Your task to perform on an android device: turn off location Image 0: 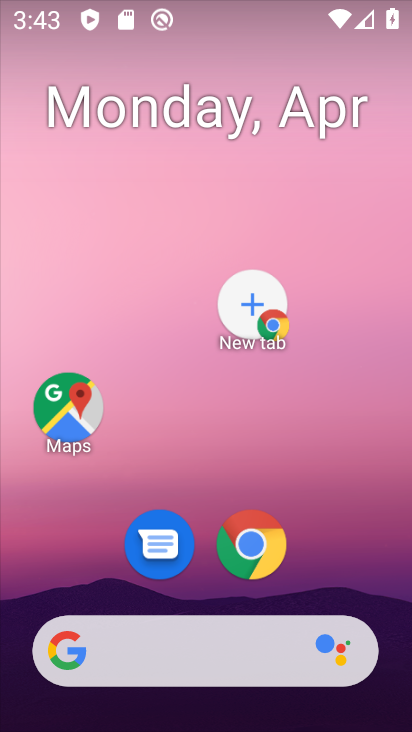
Step 0: drag from (308, 519) to (315, 59)
Your task to perform on an android device: turn off location Image 1: 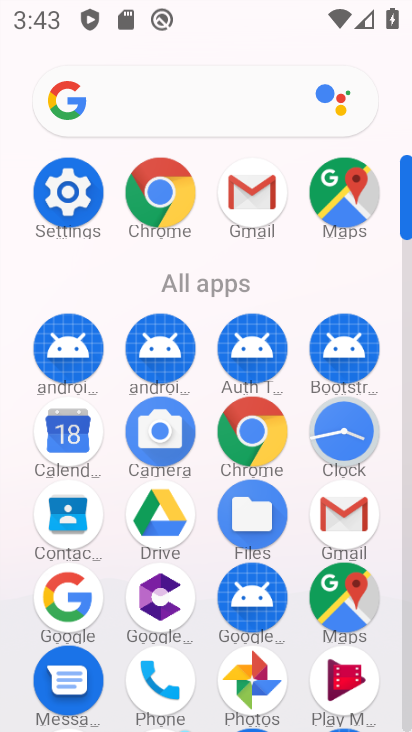
Step 1: drag from (278, 546) to (274, 136)
Your task to perform on an android device: turn off location Image 2: 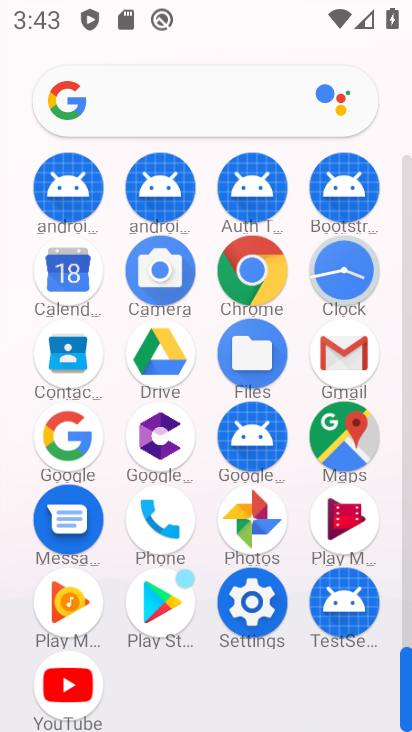
Step 2: click (245, 595)
Your task to perform on an android device: turn off location Image 3: 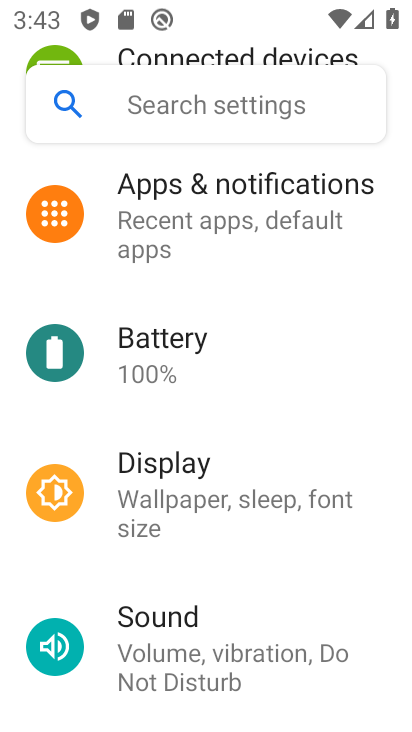
Step 3: drag from (195, 655) to (197, 207)
Your task to perform on an android device: turn off location Image 4: 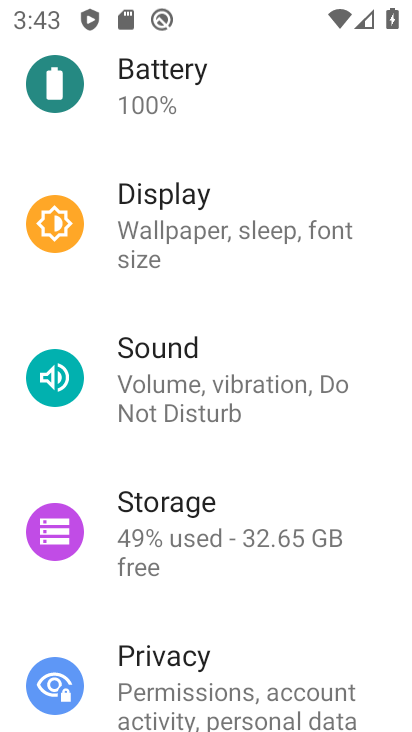
Step 4: drag from (258, 587) to (293, 166)
Your task to perform on an android device: turn off location Image 5: 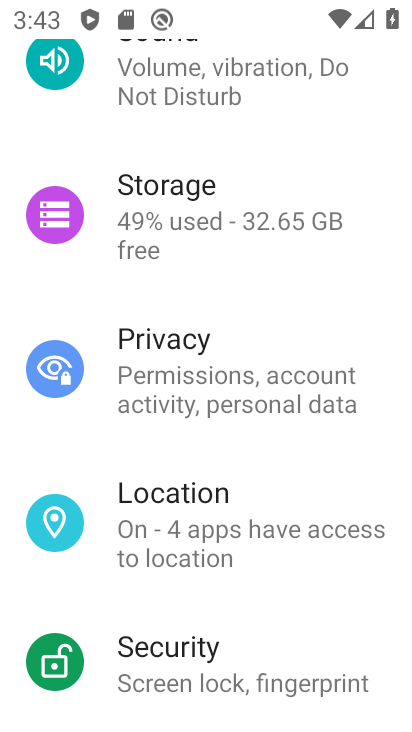
Step 5: click (248, 517)
Your task to perform on an android device: turn off location Image 6: 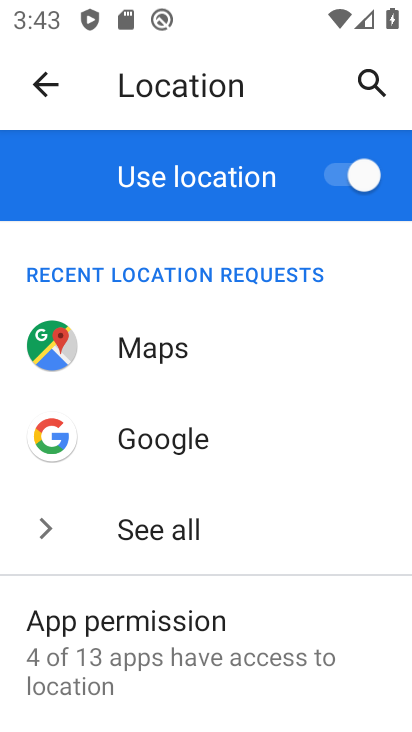
Step 6: drag from (244, 611) to (275, 288)
Your task to perform on an android device: turn off location Image 7: 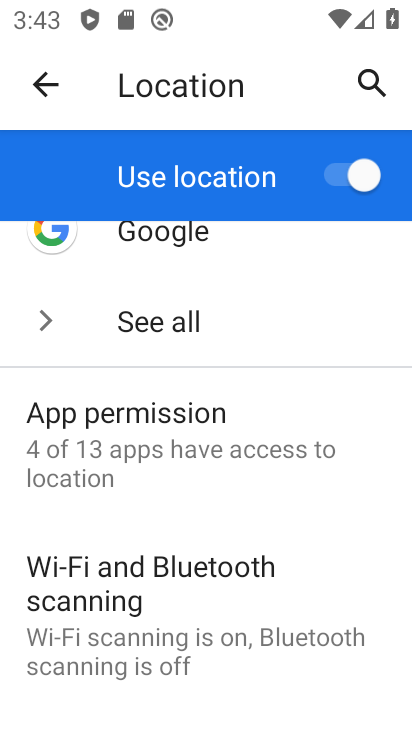
Step 7: drag from (203, 646) to (232, 354)
Your task to perform on an android device: turn off location Image 8: 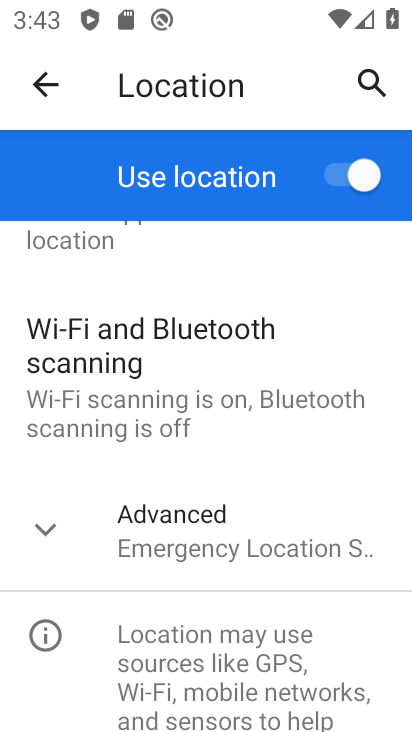
Step 8: click (252, 543)
Your task to perform on an android device: turn off location Image 9: 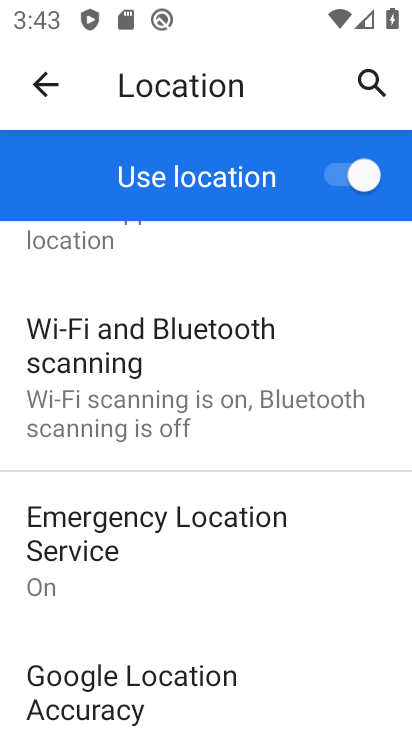
Step 9: drag from (227, 647) to (209, 239)
Your task to perform on an android device: turn off location Image 10: 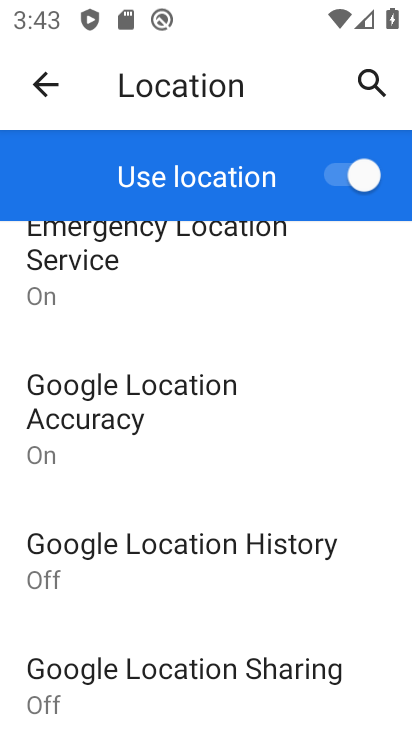
Step 10: click (327, 181)
Your task to perform on an android device: turn off location Image 11: 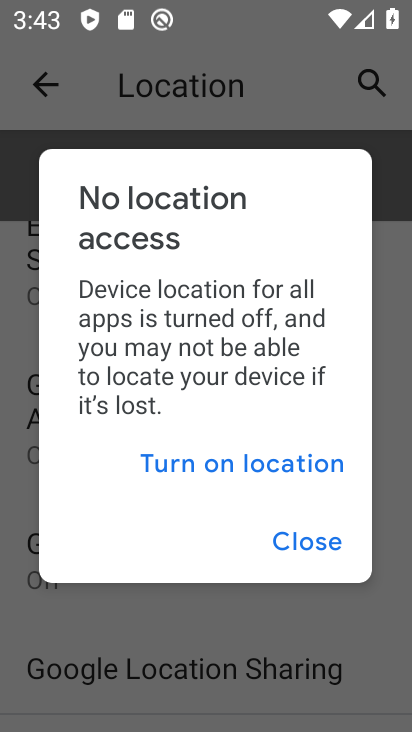
Step 11: click (290, 541)
Your task to perform on an android device: turn off location Image 12: 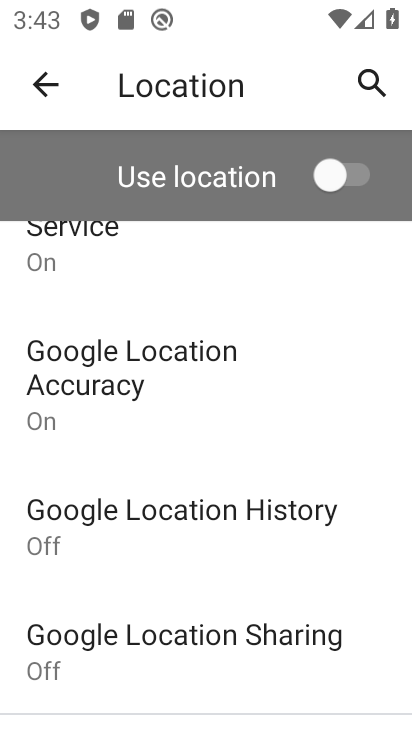
Step 12: task complete